Your task to perform on an android device: What is the news today? Image 0: 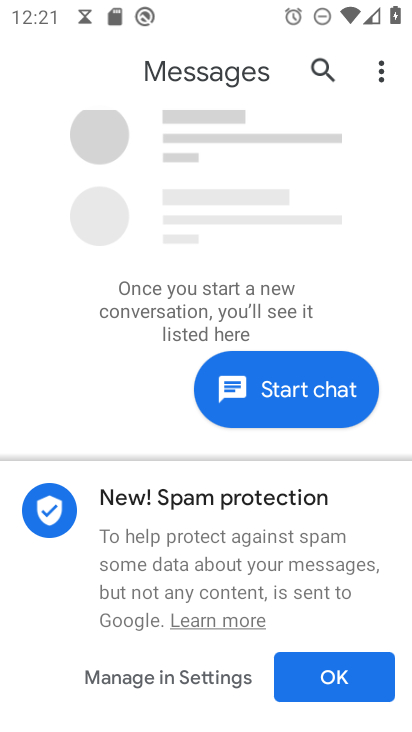
Step 0: press home button
Your task to perform on an android device: What is the news today? Image 1: 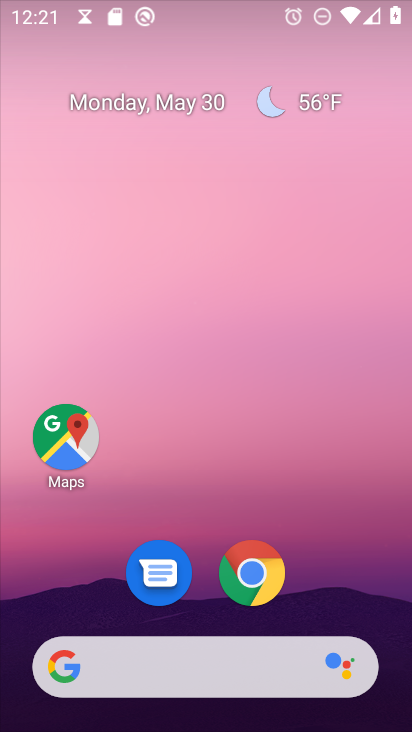
Step 1: drag from (326, 681) to (353, 59)
Your task to perform on an android device: What is the news today? Image 2: 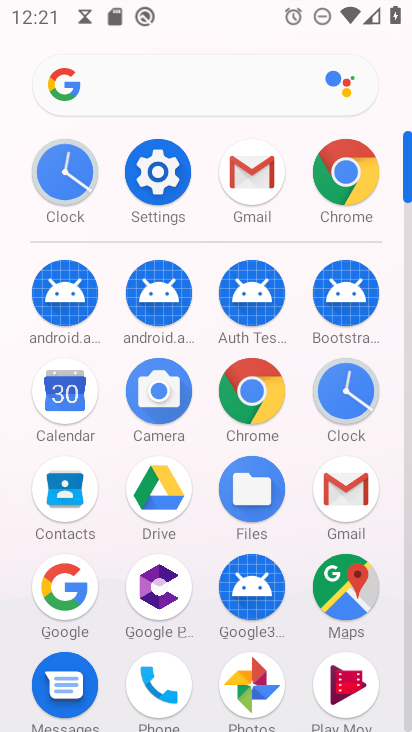
Step 2: click (263, 399)
Your task to perform on an android device: What is the news today? Image 3: 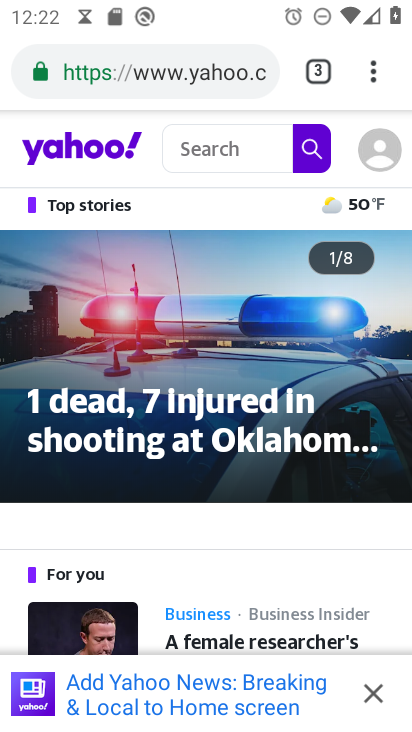
Step 3: click (249, 65)
Your task to perform on an android device: What is the news today? Image 4: 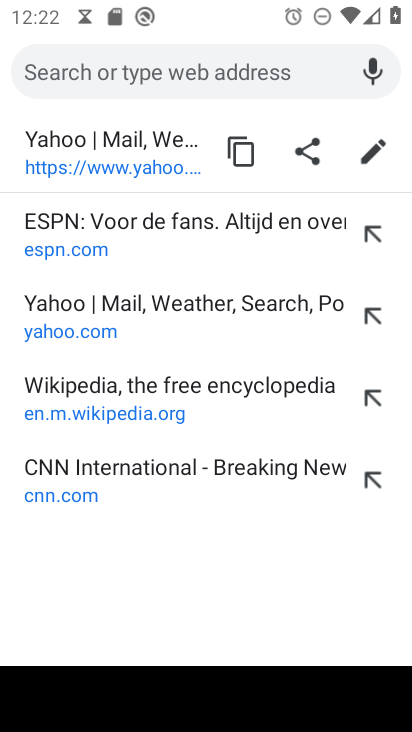
Step 4: type "news today"
Your task to perform on an android device: What is the news today? Image 5: 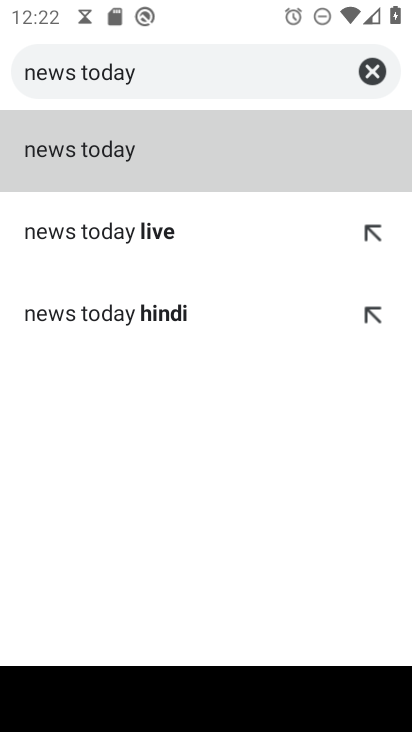
Step 5: click (161, 146)
Your task to perform on an android device: What is the news today? Image 6: 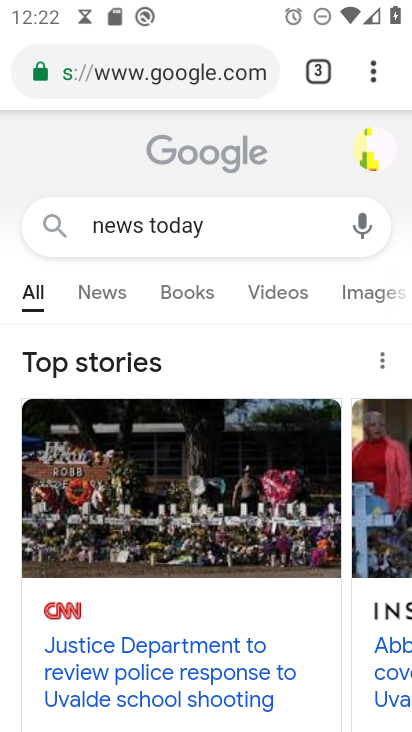
Step 6: task complete